Your task to perform on an android device: change text size in settings app Image 0: 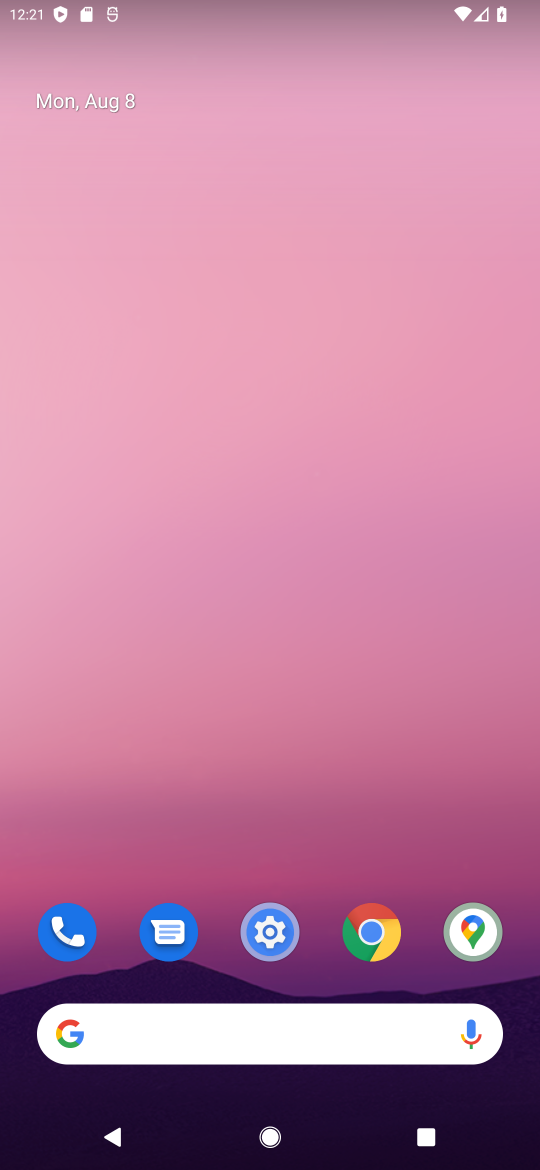
Step 0: click (290, 920)
Your task to perform on an android device: change text size in settings app Image 1: 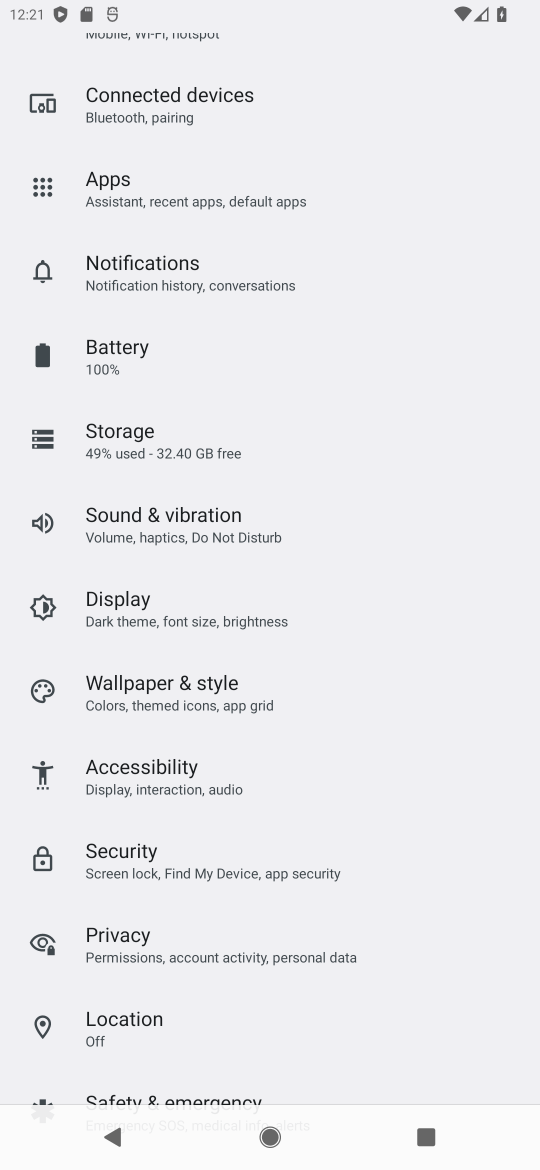
Step 1: drag from (95, 1042) to (116, 549)
Your task to perform on an android device: change text size in settings app Image 2: 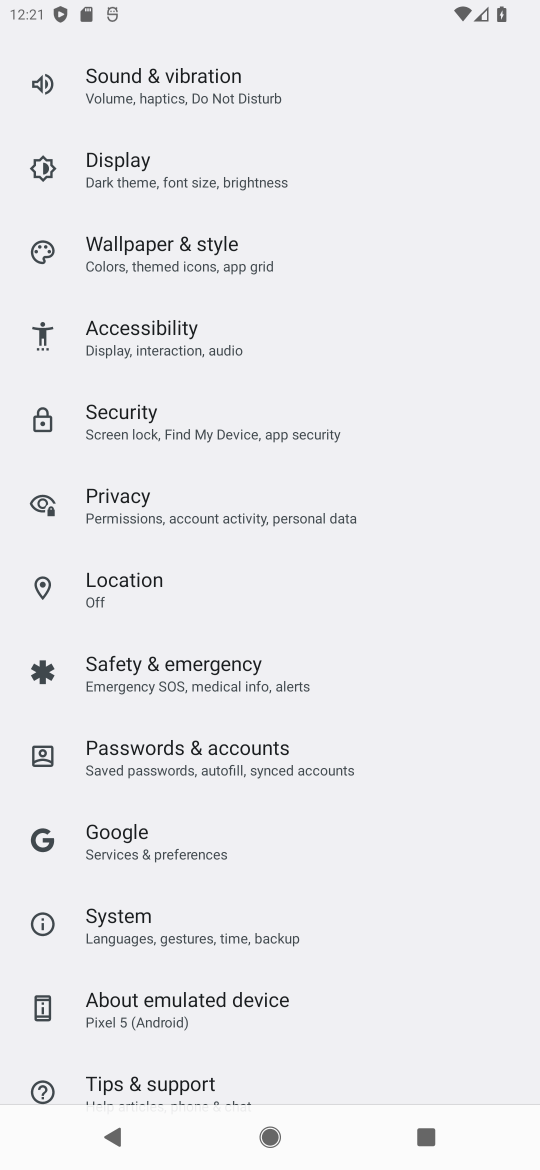
Step 2: drag from (160, 1067) to (206, 432)
Your task to perform on an android device: change text size in settings app Image 3: 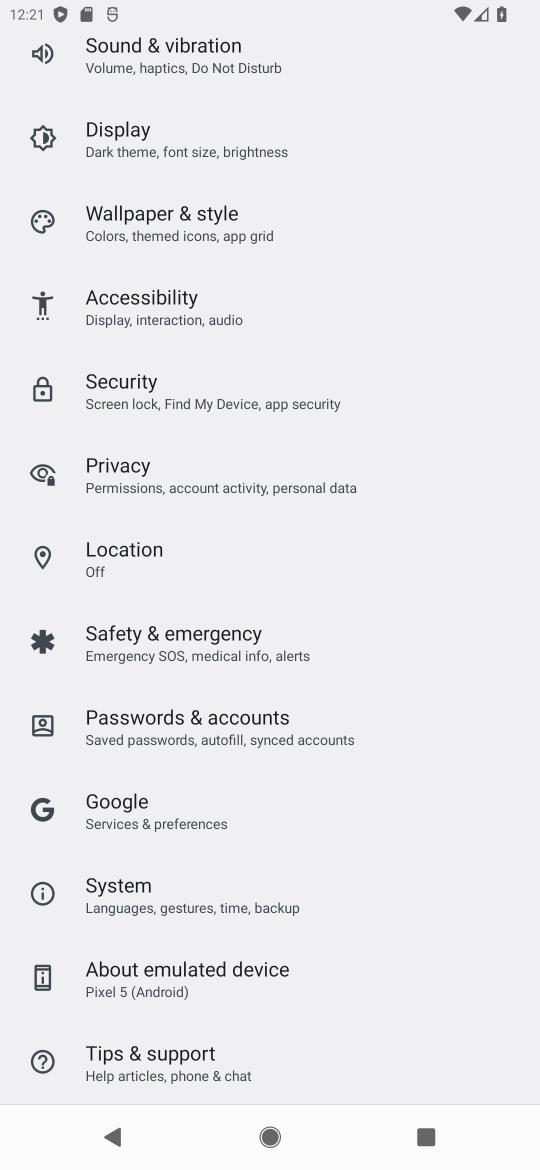
Step 3: drag from (249, 980) to (280, 311)
Your task to perform on an android device: change text size in settings app Image 4: 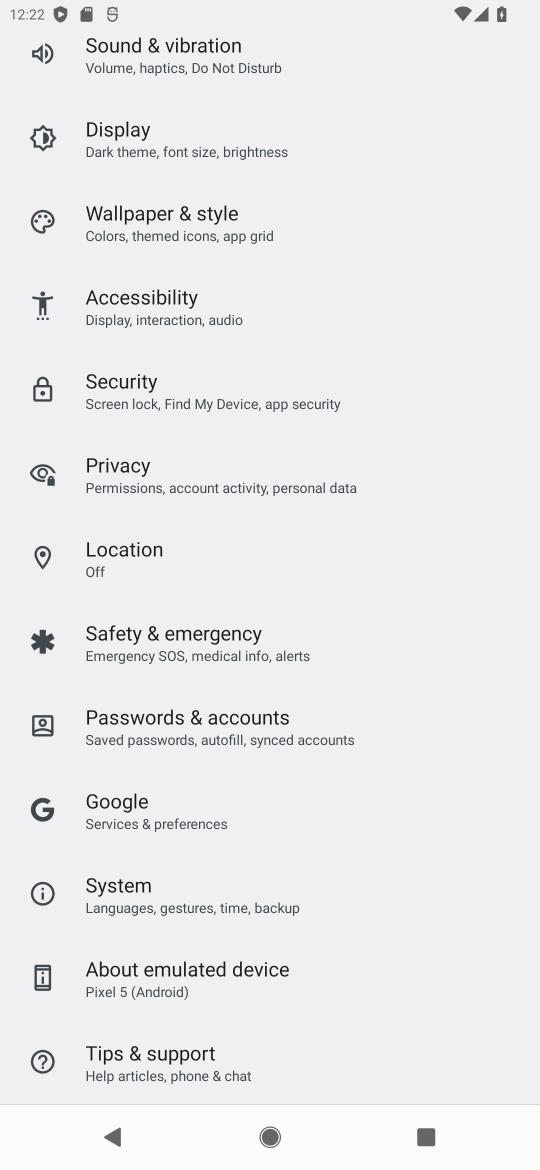
Step 4: click (121, 162)
Your task to perform on an android device: change text size in settings app Image 5: 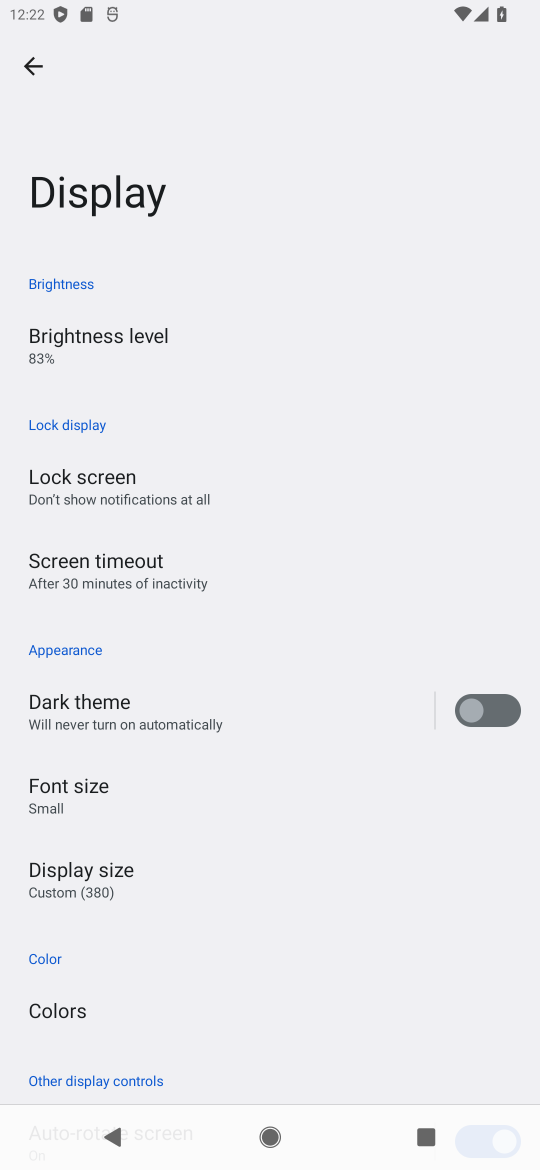
Step 5: click (84, 819)
Your task to perform on an android device: change text size in settings app Image 6: 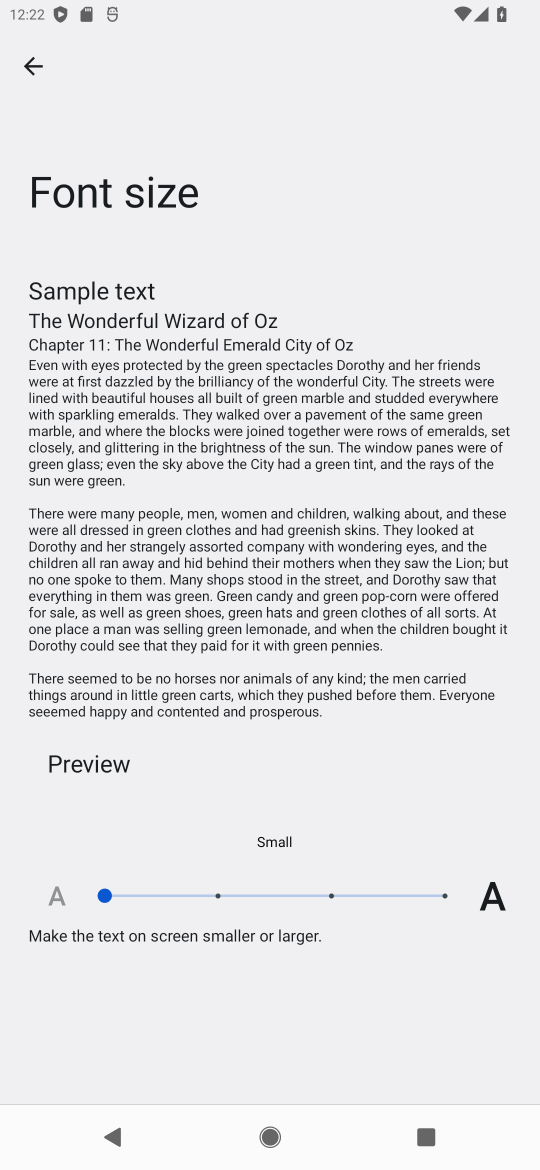
Step 6: click (441, 894)
Your task to perform on an android device: change text size in settings app Image 7: 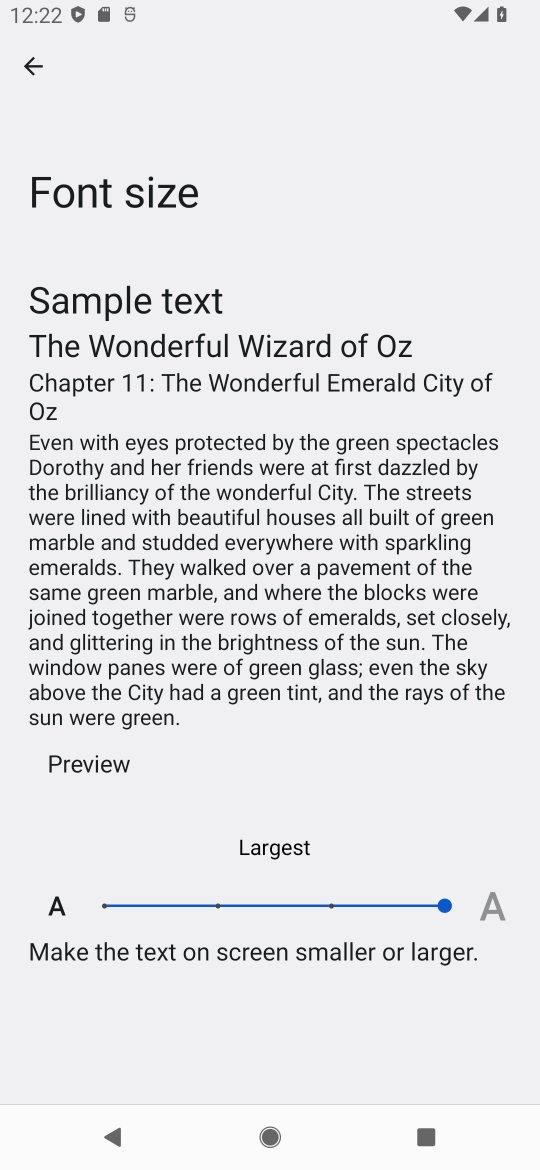
Step 7: task complete